Your task to perform on an android device: Open calendar and show me the second week of next month Image 0: 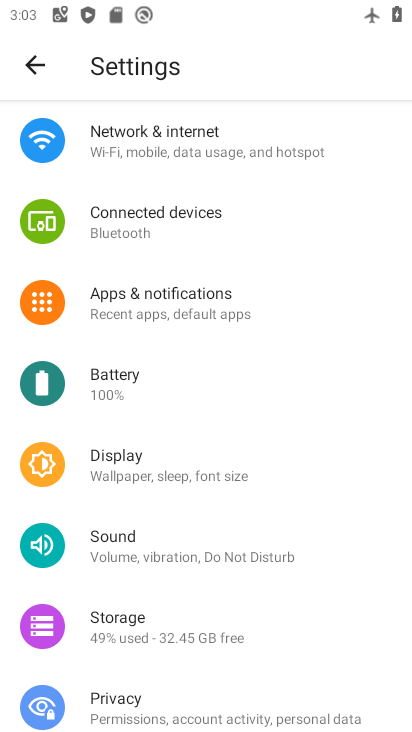
Step 0: drag from (242, 662) to (215, 247)
Your task to perform on an android device: Open calendar and show me the second week of next month Image 1: 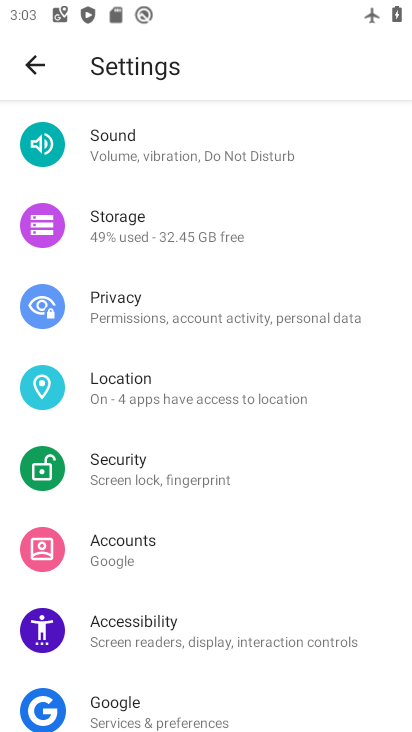
Step 1: press home button
Your task to perform on an android device: Open calendar and show me the second week of next month Image 2: 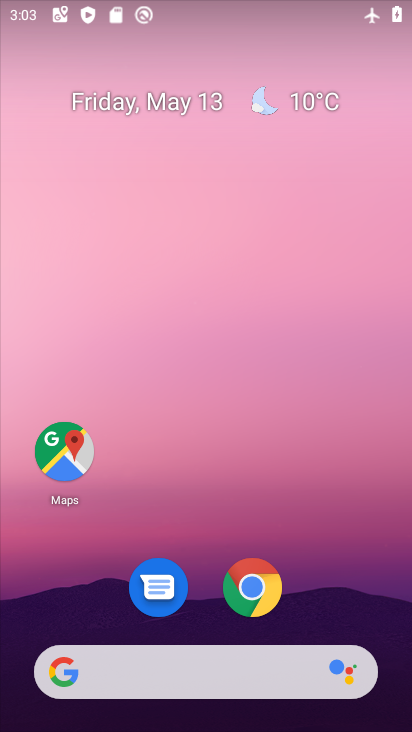
Step 2: drag from (324, 602) to (261, 79)
Your task to perform on an android device: Open calendar and show me the second week of next month Image 3: 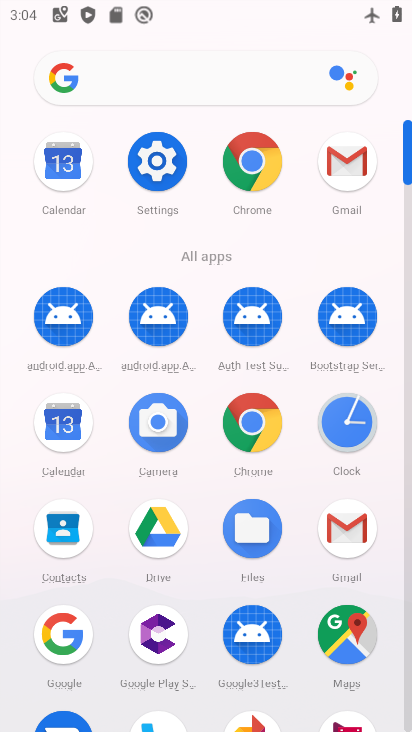
Step 3: click (54, 426)
Your task to perform on an android device: Open calendar and show me the second week of next month Image 4: 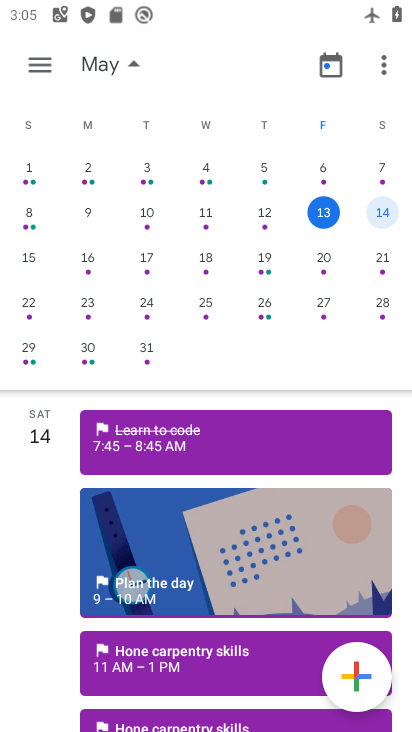
Step 4: task complete